Your task to perform on an android device: Check the news Image 0: 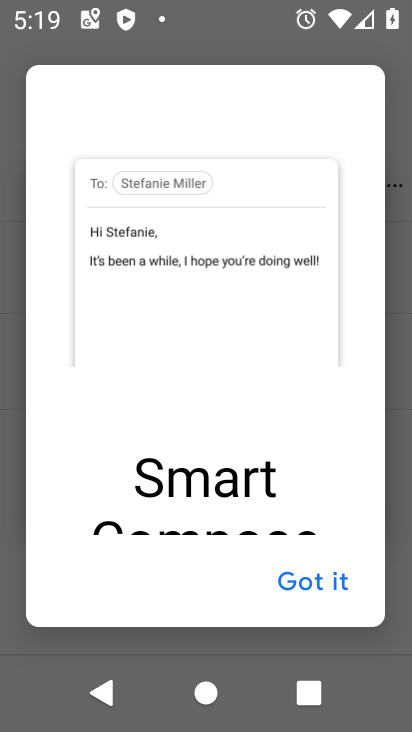
Step 0: press home button
Your task to perform on an android device: Check the news Image 1: 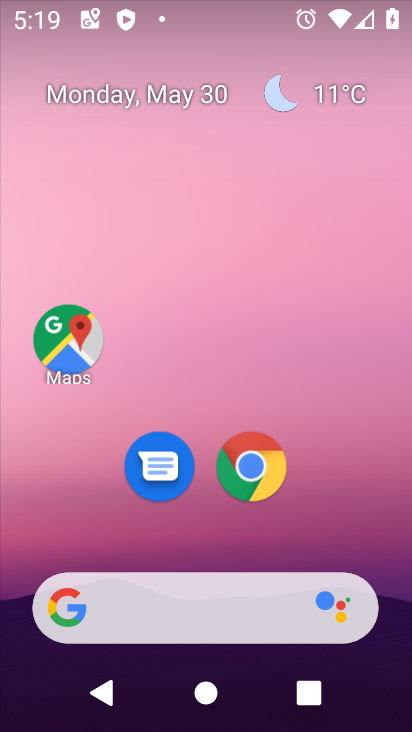
Step 1: click (247, 461)
Your task to perform on an android device: Check the news Image 2: 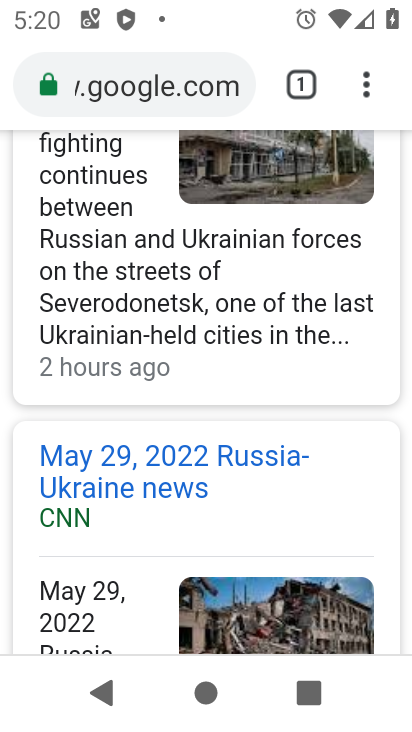
Step 2: click (158, 75)
Your task to perform on an android device: Check the news Image 3: 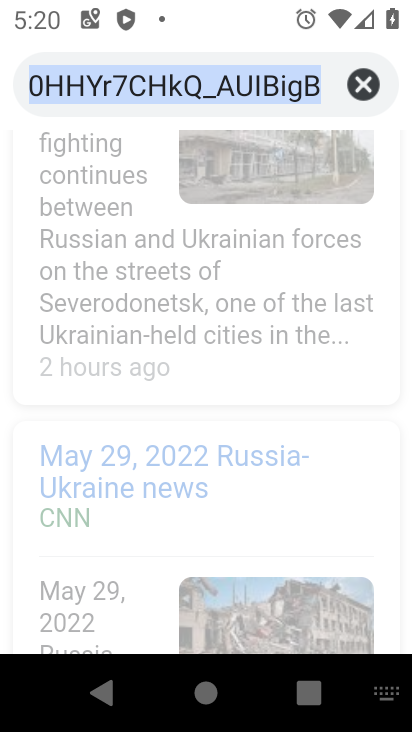
Step 3: type "news"
Your task to perform on an android device: Check the news Image 4: 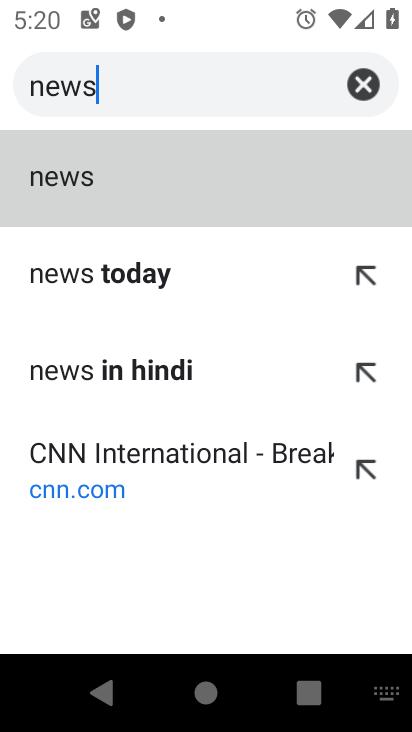
Step 4: click (57, 176)
Your task to perform on an android device: Check the news Image 5: 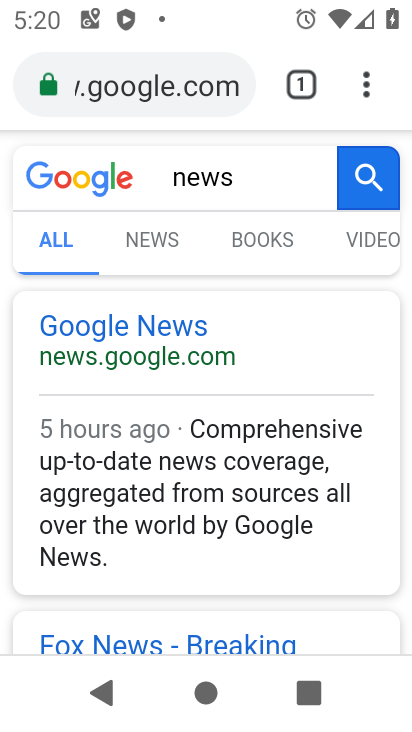
Step 5: click (161, 249)
Your task to perform on an android device: Check the news Image 6: 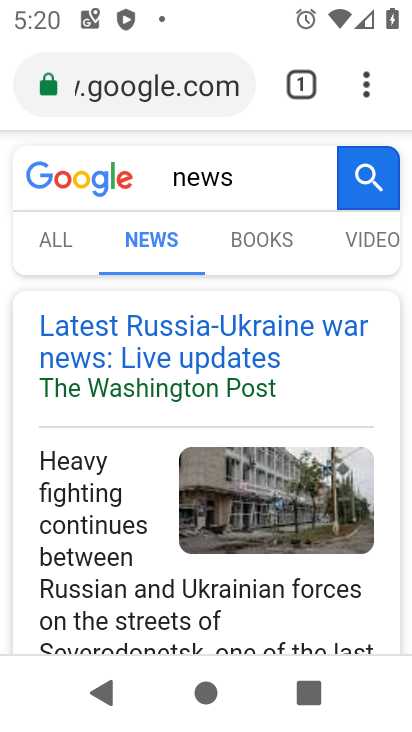
Step 6: task complete